Your task to perform on an android device: turn on improve location accuracy Image 0: 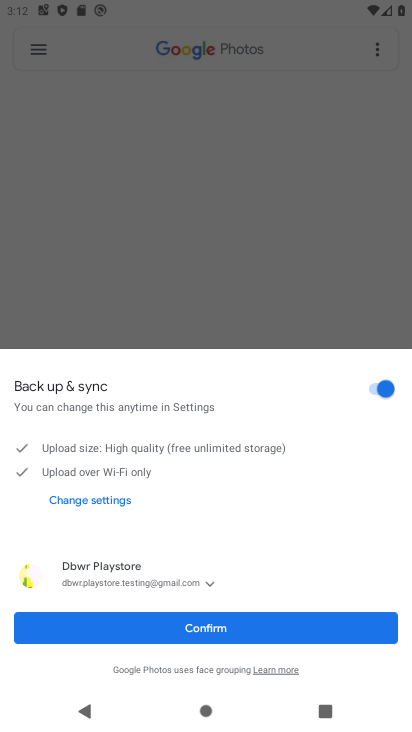
Step 0: press home button
Your task to perform on an android device: turn on improve location accuracy Image 1: 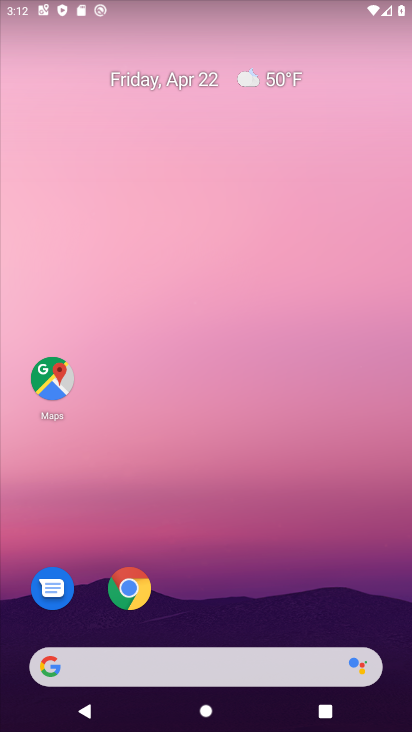
Step 1: drag from (354, 565) to (389, 90)
Your task to perform on an android device: turn on improve location accuracy Image 2: 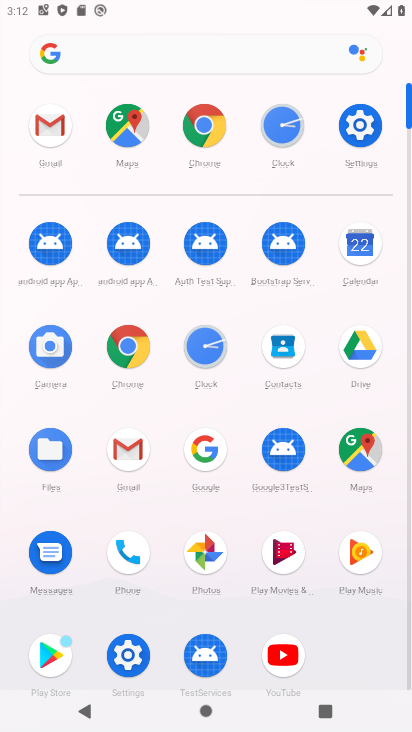
Step 2: click (368, 117)
Your task to perform on an android device: turn on improve location accuracy Image 3: 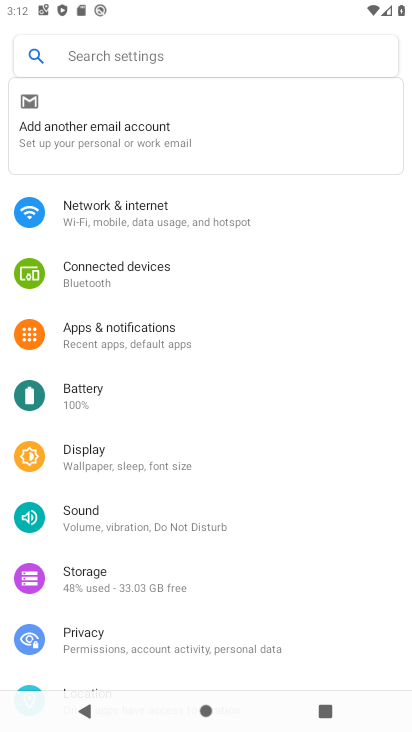
Step 3: drag from (321, 566) to (344, 278)
Your task to perform on an android device: turn on improve location accuracy Image 4: 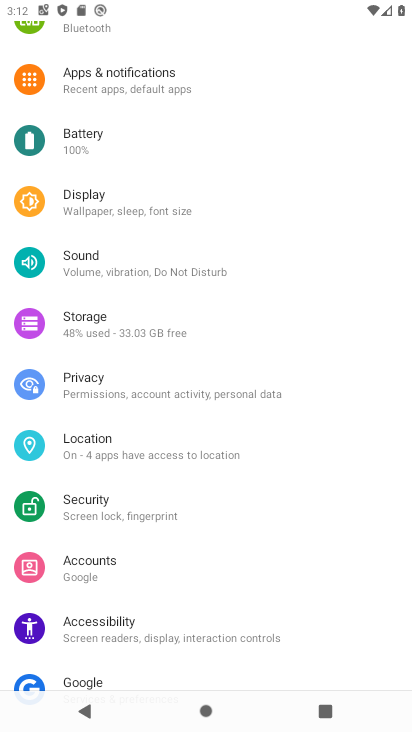
Step 4: drag from (325, 558) to (336, 240)
Your task to perform on an android device: turn on improve location accuracy Image 5: 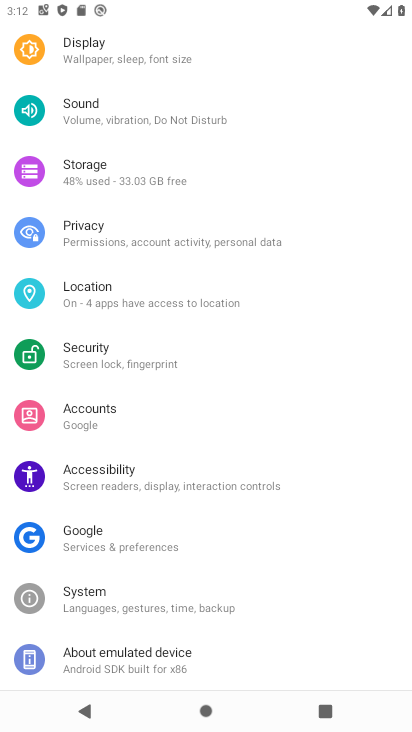
Step 5: click (218, 300)
Your task to perform on an android device: turn on improve location accuracy Image 6: 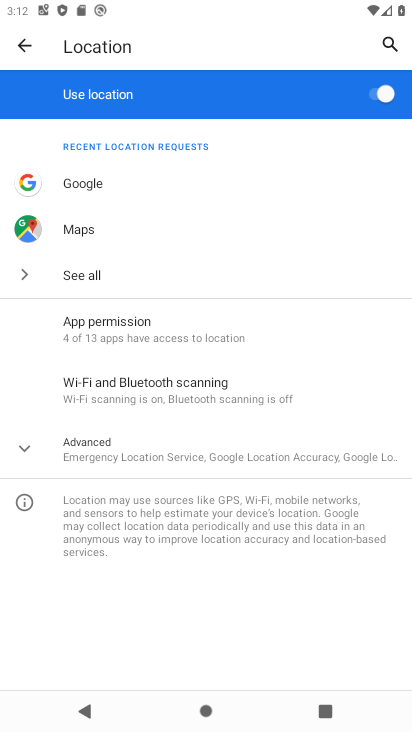
Step 6: click (237, 459)
Your task to perform on an android device: turn on improve location accuracy Image 7: 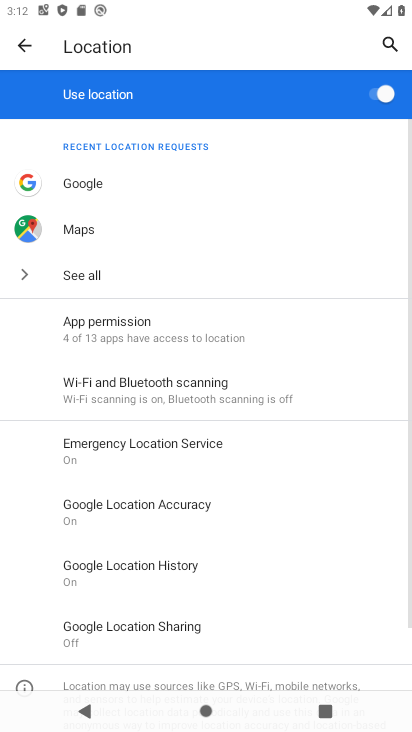
Step 7: drag from (267, 582) to (282, 447)
Your task to perform on an android device: turn on improve location accuracy Image 8: 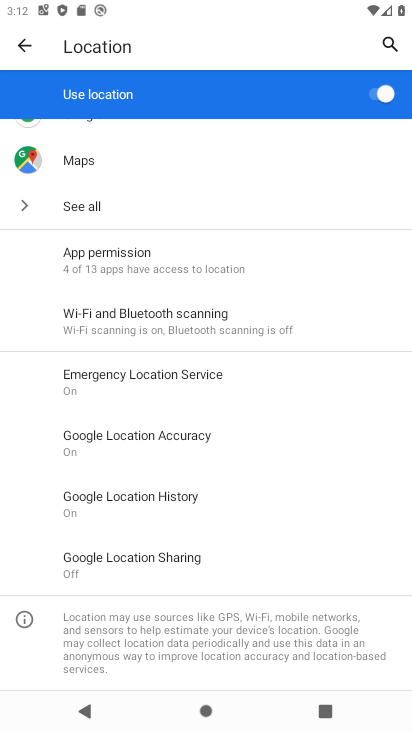
Step 8: click (199, 426)
Your task to perform on an android device: turn on improve location accuracy Image 9: 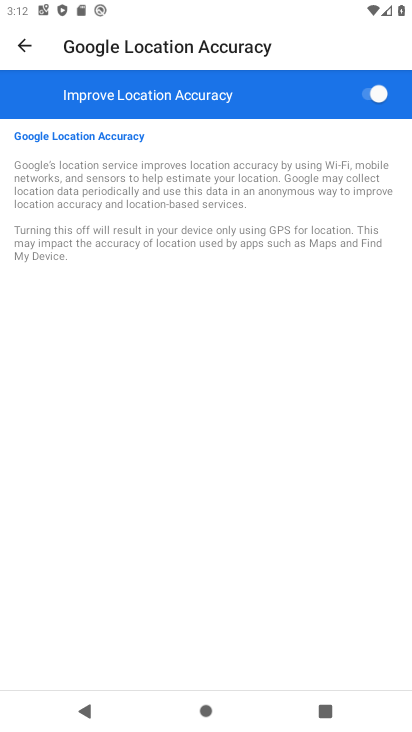
Step 9: task complete